Your task to perform on an android device: What's on my calendar tomorrow? Image 0: 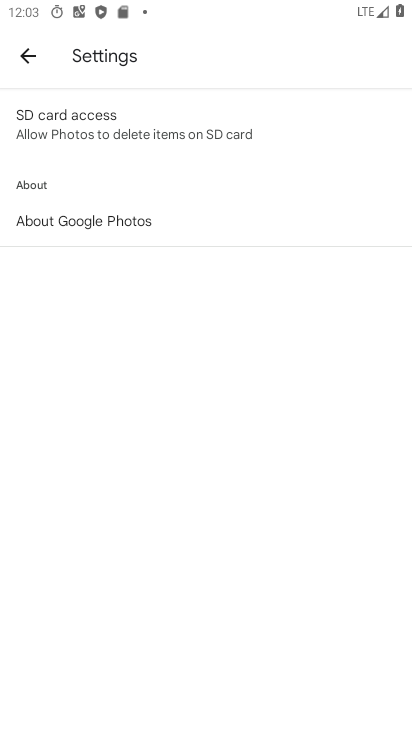
Step 0: press home button
Your task to perform on an android device: What's on my calendar tomorrow? Image 1: 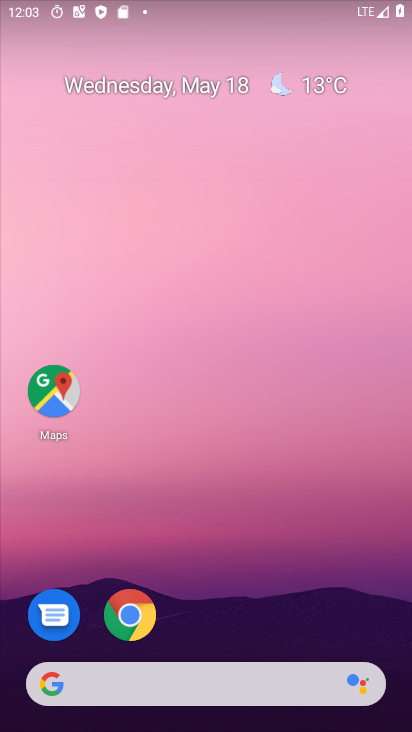
Step 1: drag from (171, 649) to (280, 281)
Your task to perform on an android device: What's on my calendar tomorrow? Image 2: 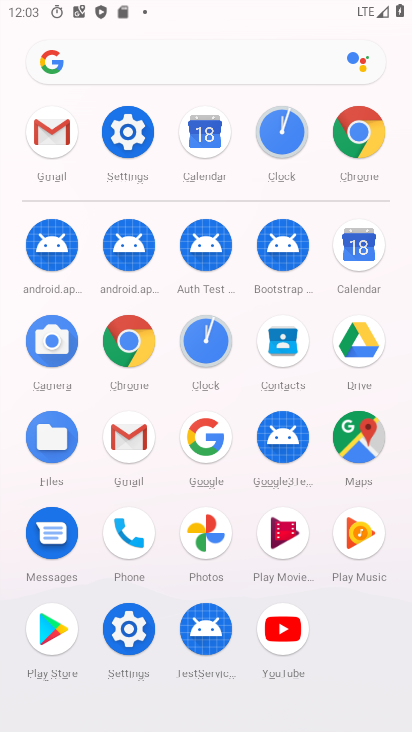
Step 2: click (360, 263)
Your task to perform on an android device: What's on my calendar tomorrow? Image 3: 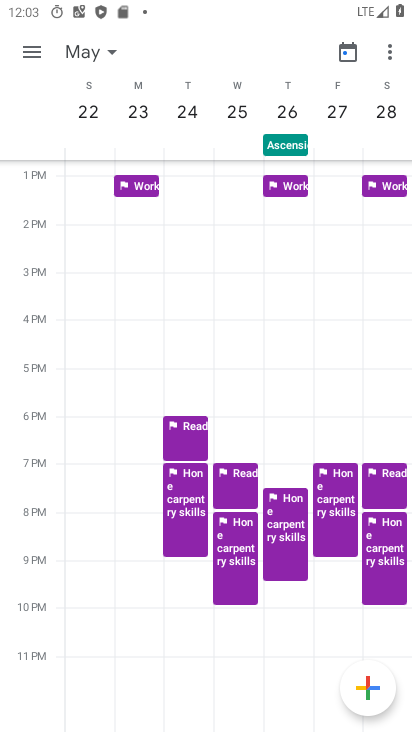
Step 3: click (84, 52)
Your task to perform on an android device: What's on my calendar tomorrow? Image 4: 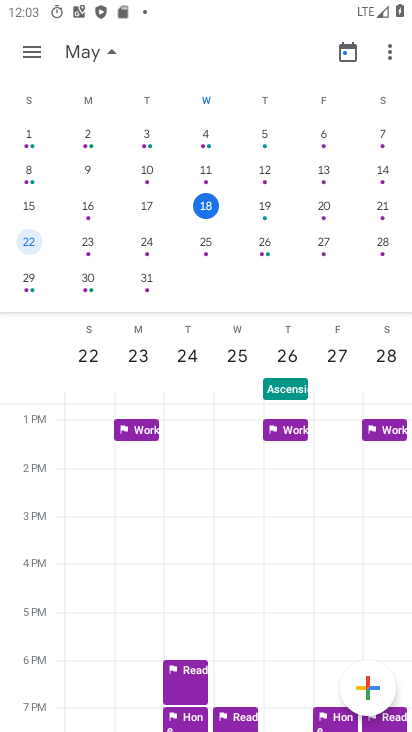
Step 4: click (262, 204)
Your task to perform on an android device: What's on my calendar tomorrow? Image 5: 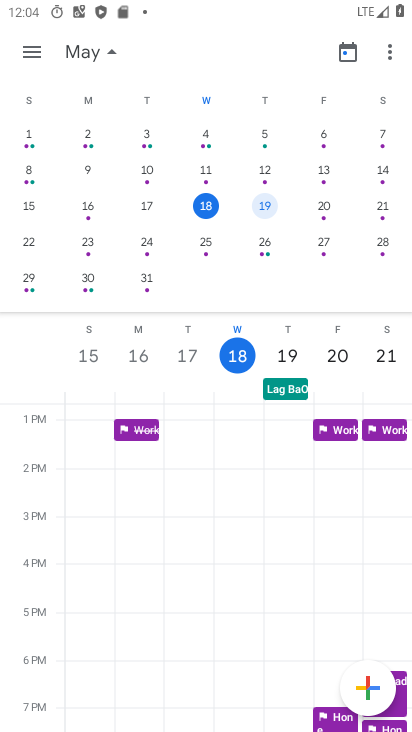
Step 5: click (28, 53)
Your task to perform on an android device: What's on my calendar tomorrow? Image 6: 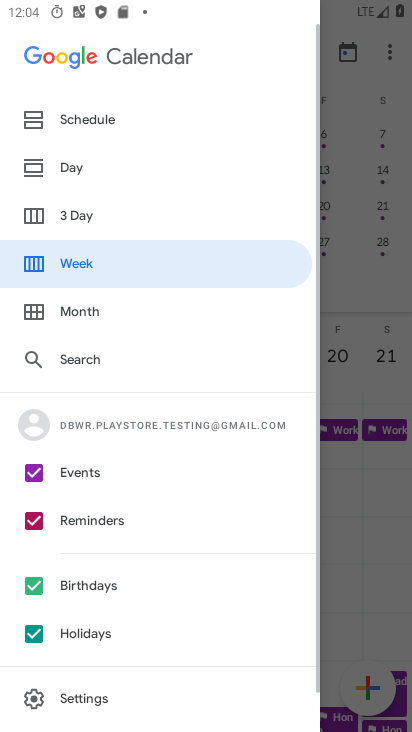
Step 6: click (90, 122)
Your task to perform on an android device: What's on my calendar tomorrow? Image 7: 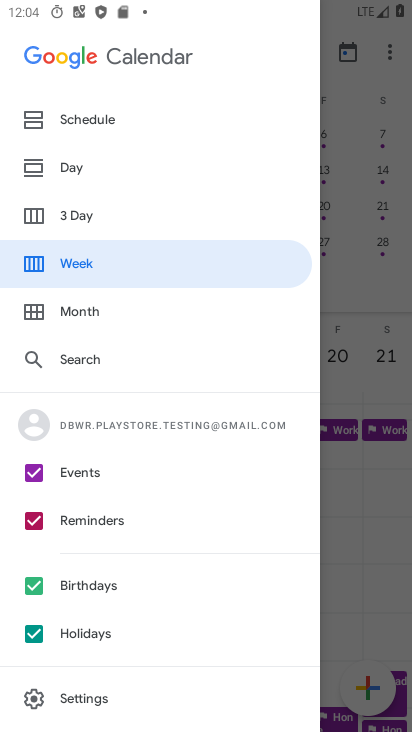
Step 7: click (106, 118)
Your task to perform on an android device: What's on my calendar tomorrow? Image 8: 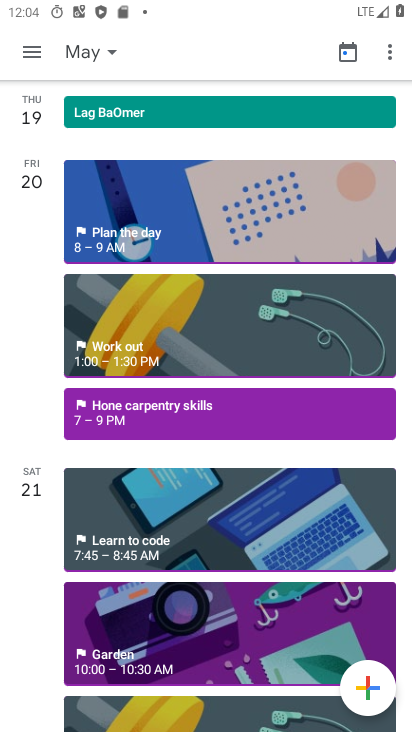
Step 8: click (177, 111)
Your task to perform on an android device: What's on my calendar tomorrow? Image 9: 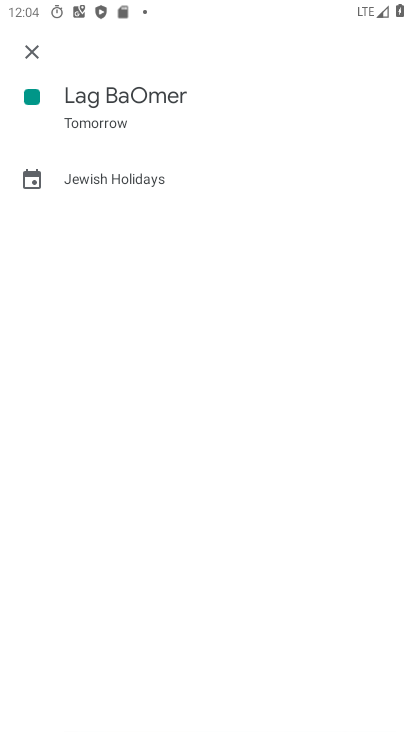
Step 9: task complete